Your task to perform on an android device: Add duracell triple a to the cart on newegg Image 0: 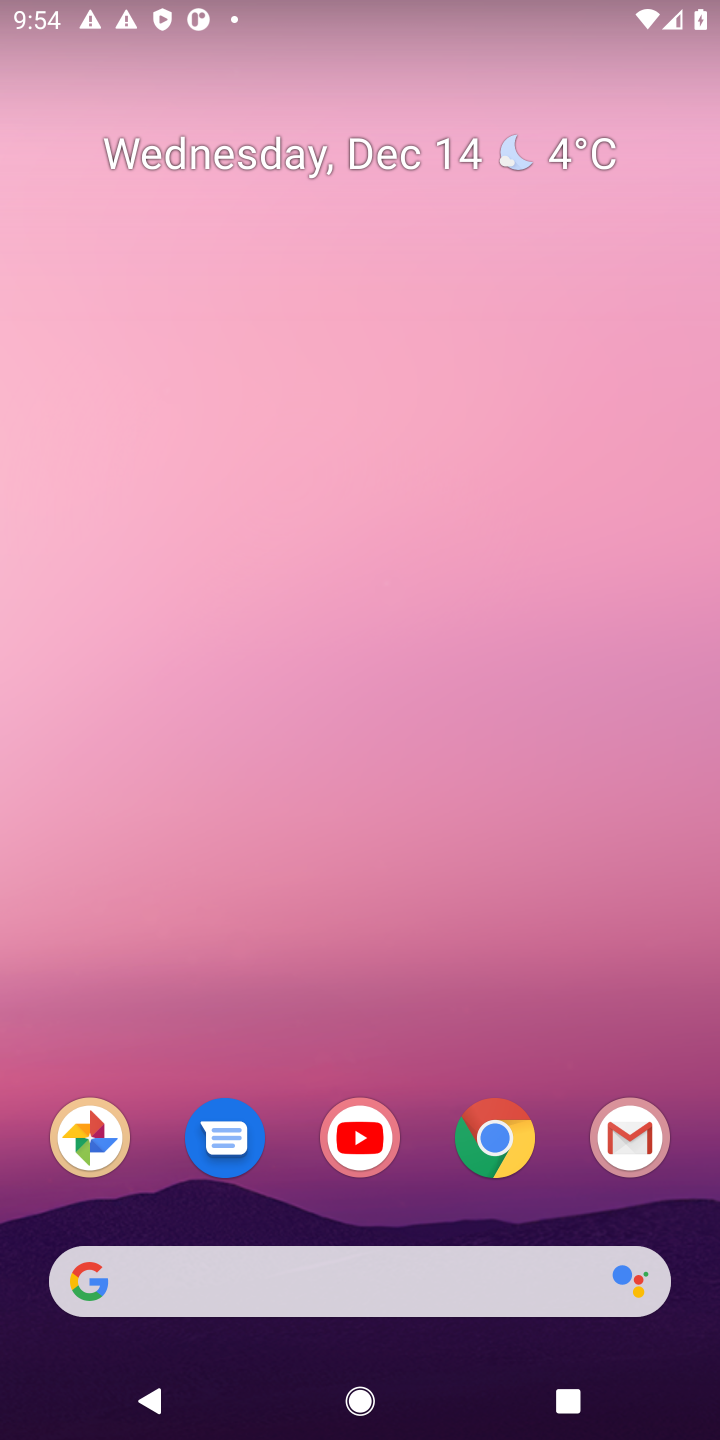
Step 0: click (511, 1165)
Your task to perform on an android device: Add duracell triple a to the cart on newegg Image 1: 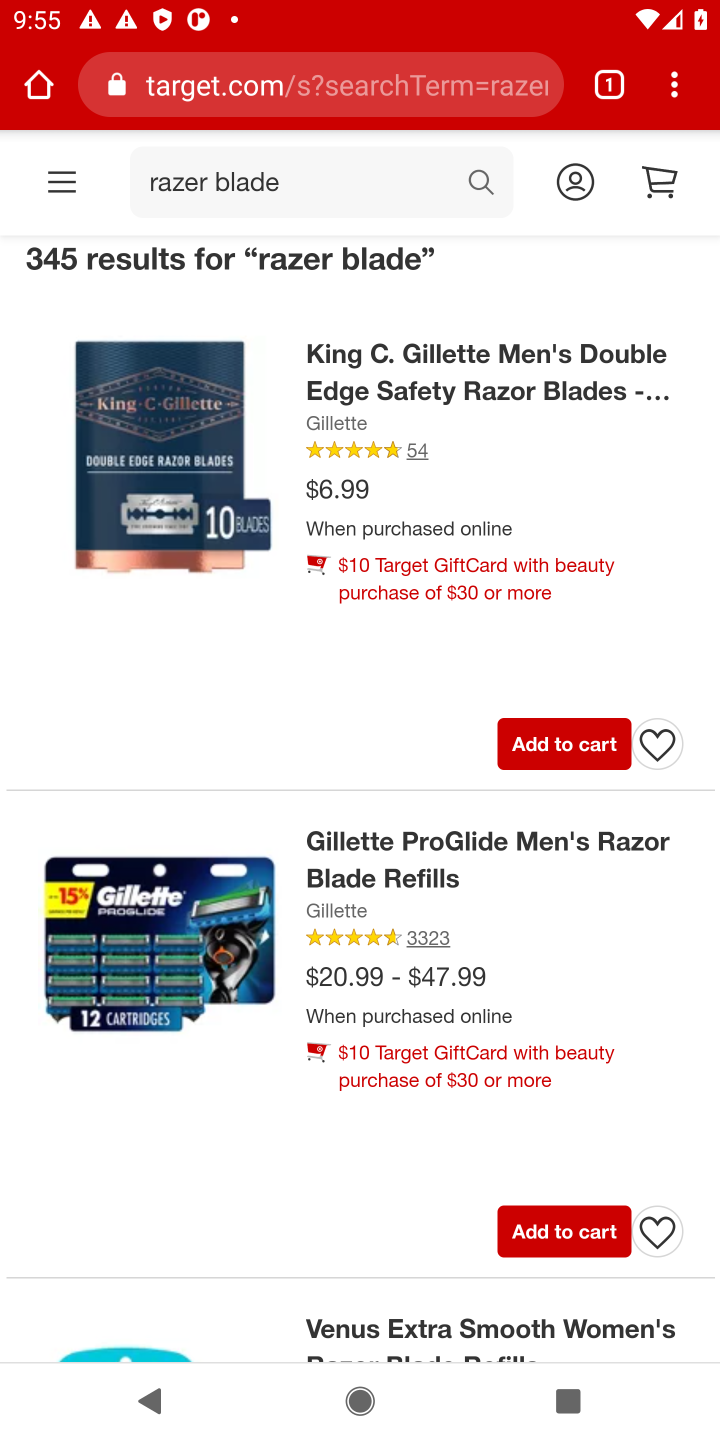
Step 1: click (219, 83)
Your task to perform on an android device: Add duracell triple a to the cart on newegg Image 2: 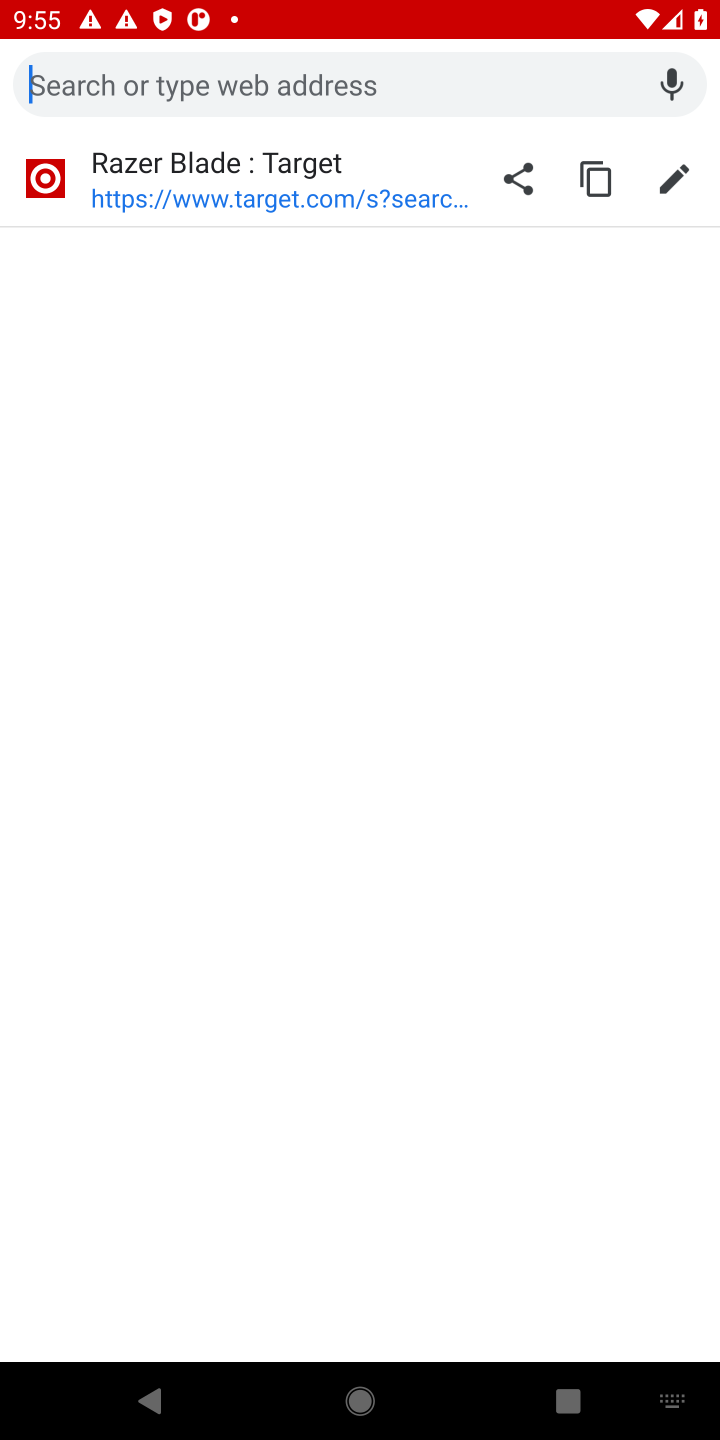
Step 2: type "newegg.com"
Your task to perform on an android device: Add duracell triple a to the cart on newegg Image 3: 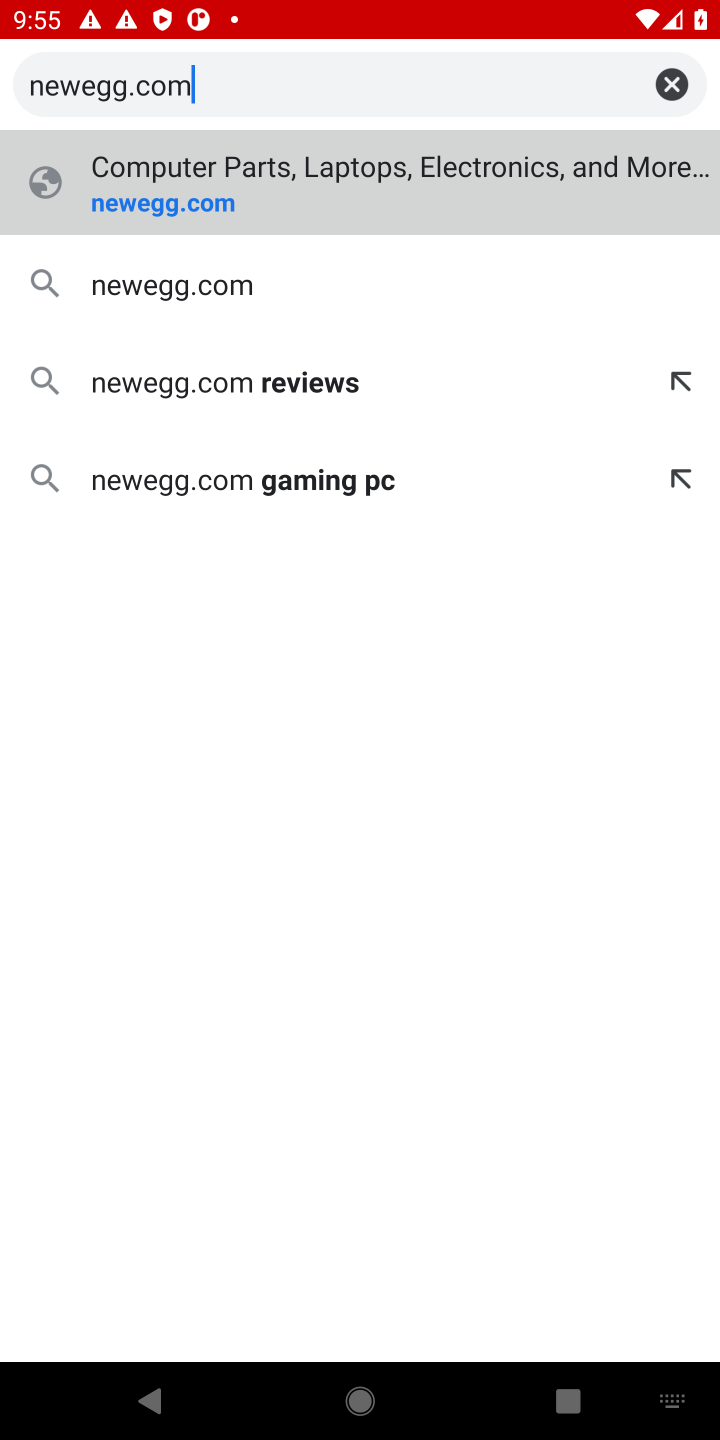
Step 3: click (151, 218)
Your task to perform on an android device: Add duracell triple a to the cart on newegg Image 4: 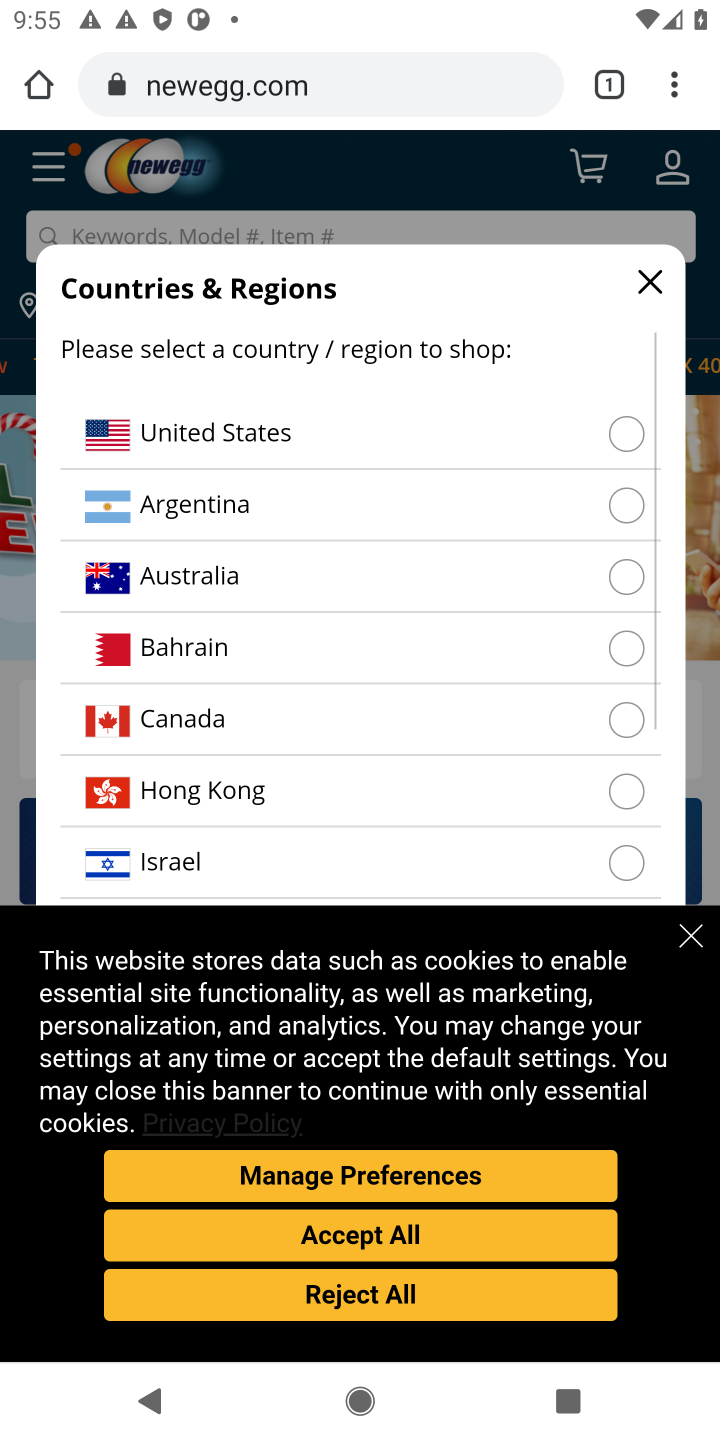
Step 4: click (689, 946)
Your task to perform on an android device: Add duracell triple a to the cart on newegg Image 5: 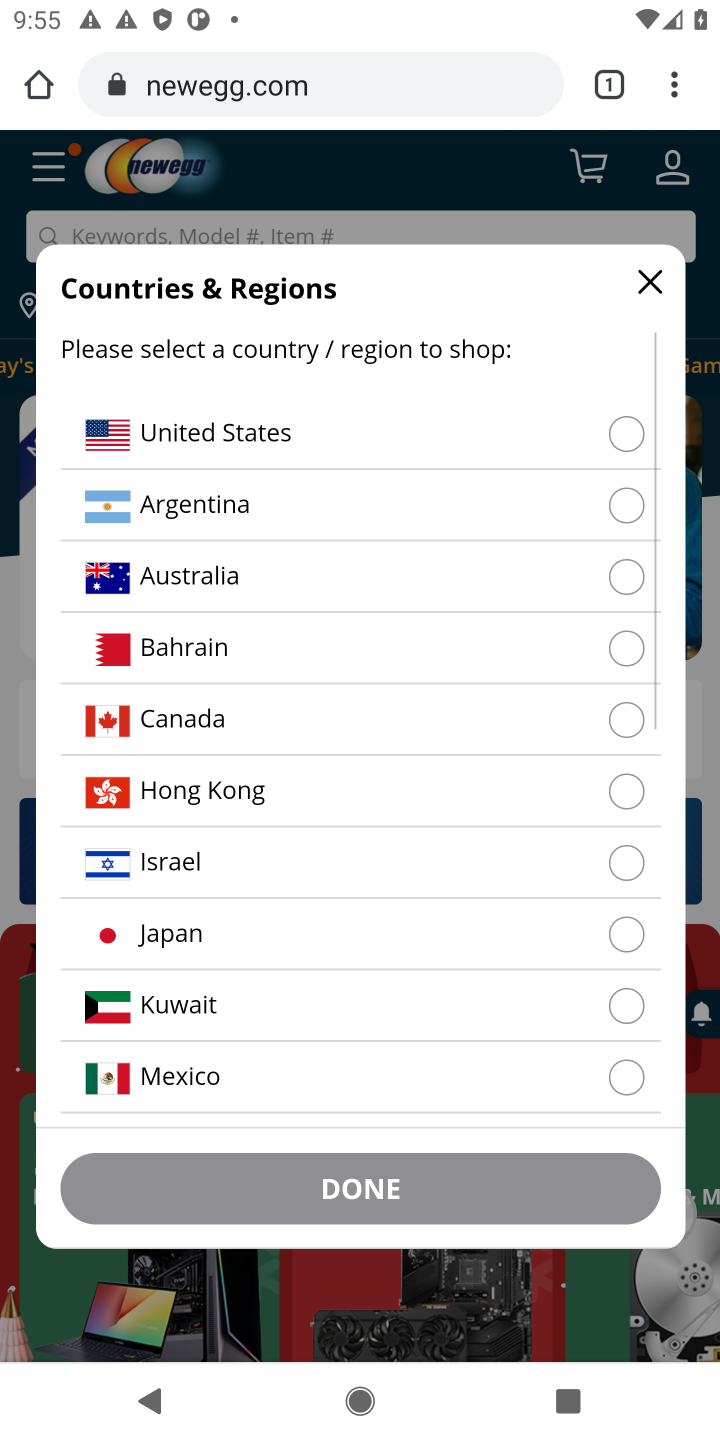
Step 5: click (150, 444)
Your task to perform on an android device: Add duracell triple a to the cart on newegg Image 6: 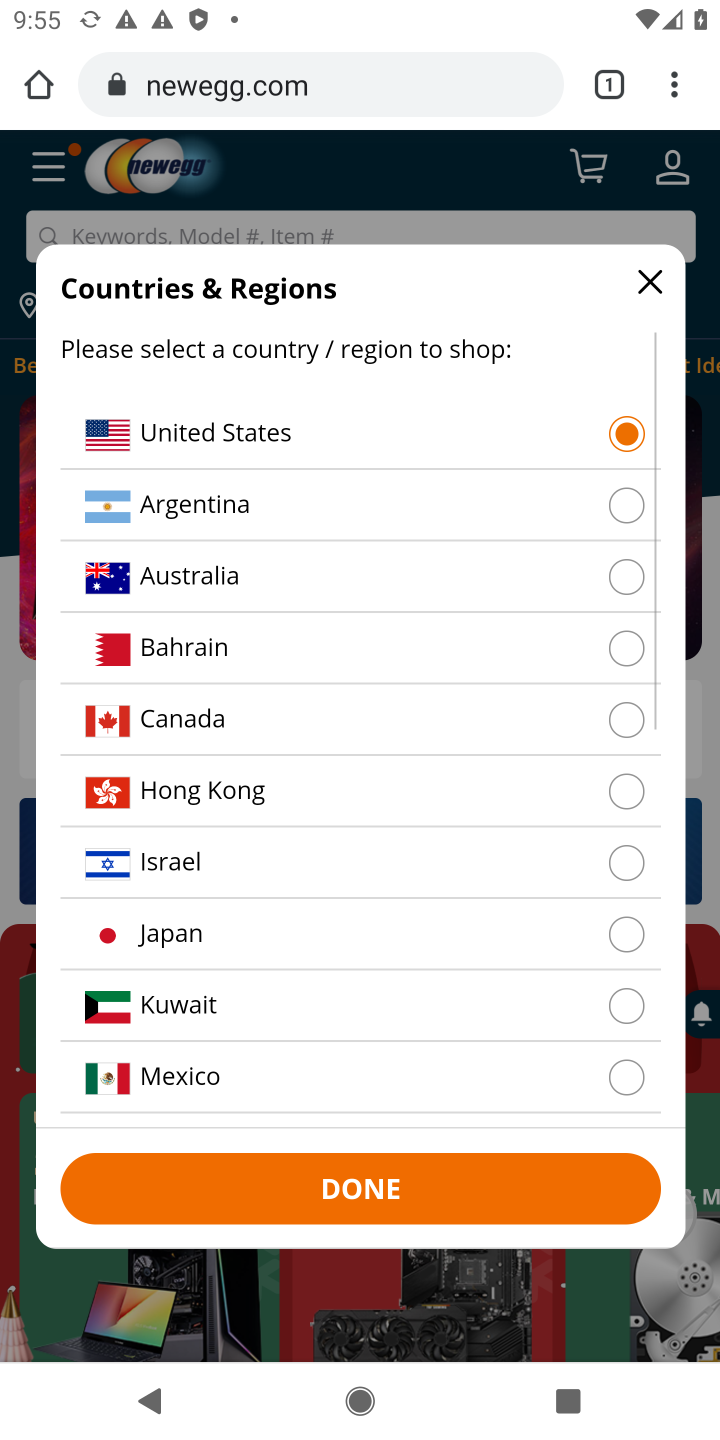
Step 6: click (346, 1203)
Your task to perform on an android device: Add duracell triple a to the cart on newegg Image 7: 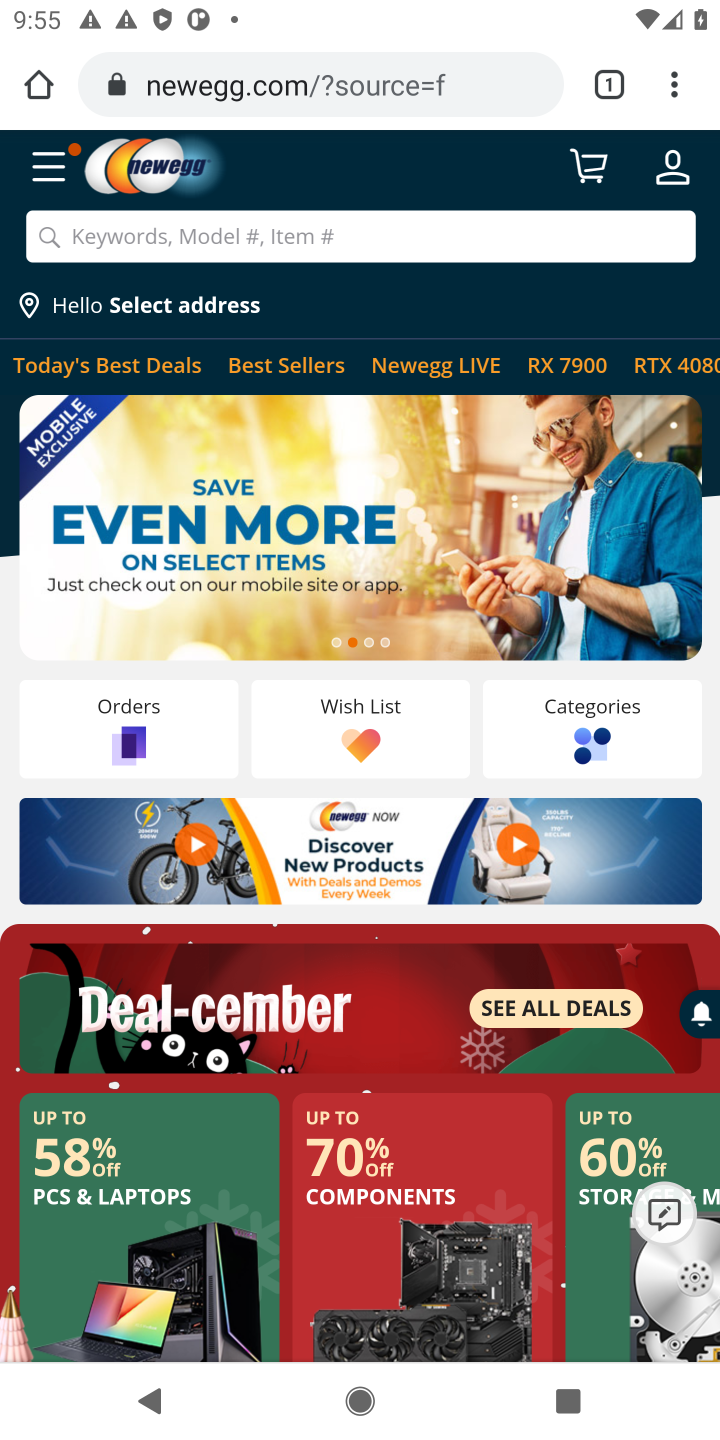
Step 7: click (127, 242)
Your task to perform on an android device: Add duracell triple a to the cart on newegg Image 8: 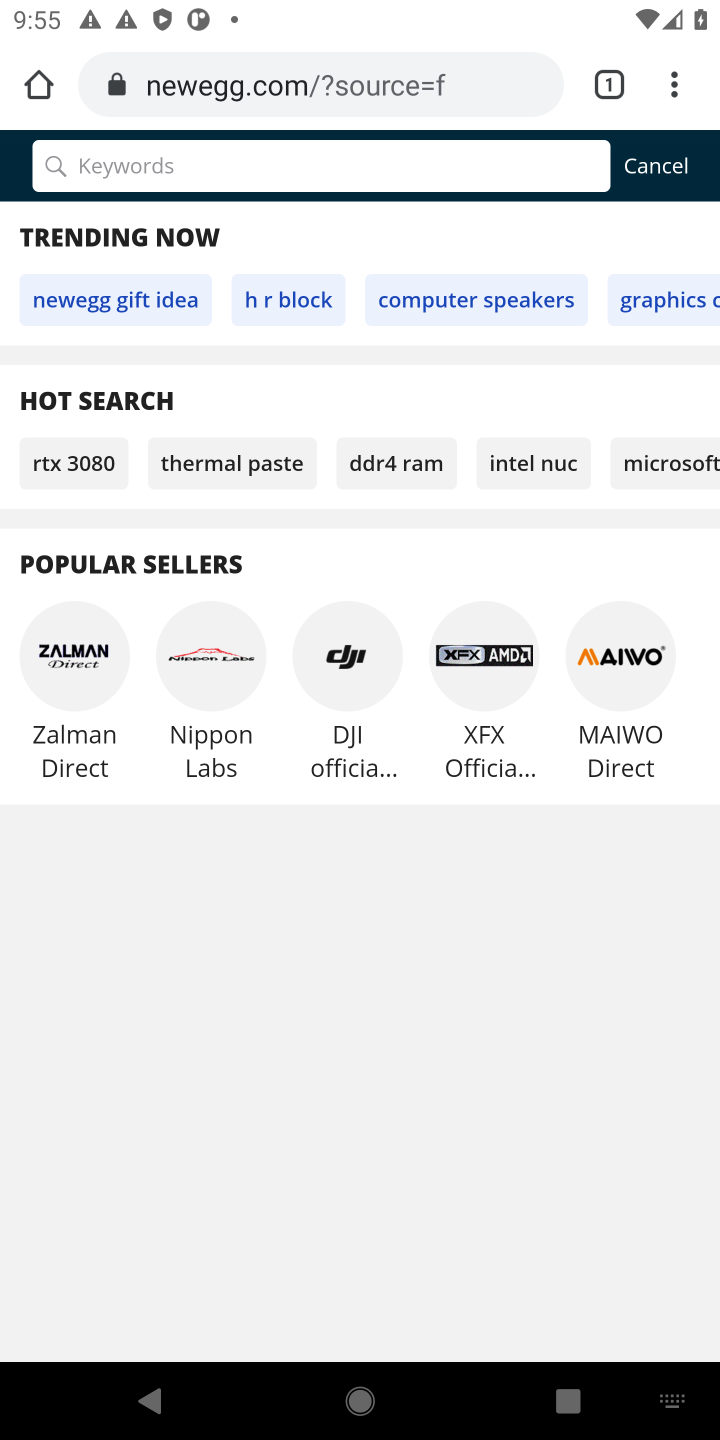
Step 8: type "duracell triple a"
Your task to perform on an android device: Add duracell triple a to the cart on newegg Image 9: 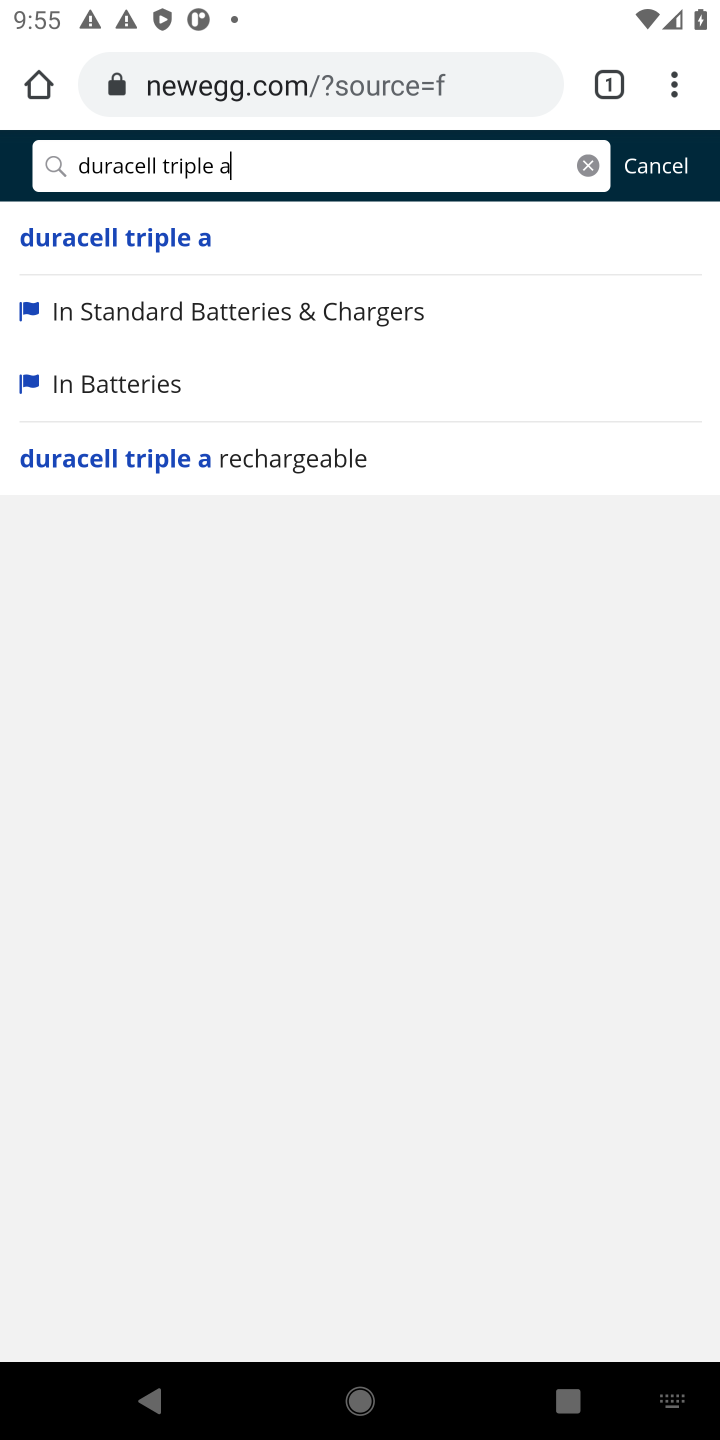
Step 9: click (105, 247)
Your task to perform on an android device: Add duracell triple a to the cart on newegg Image 10: 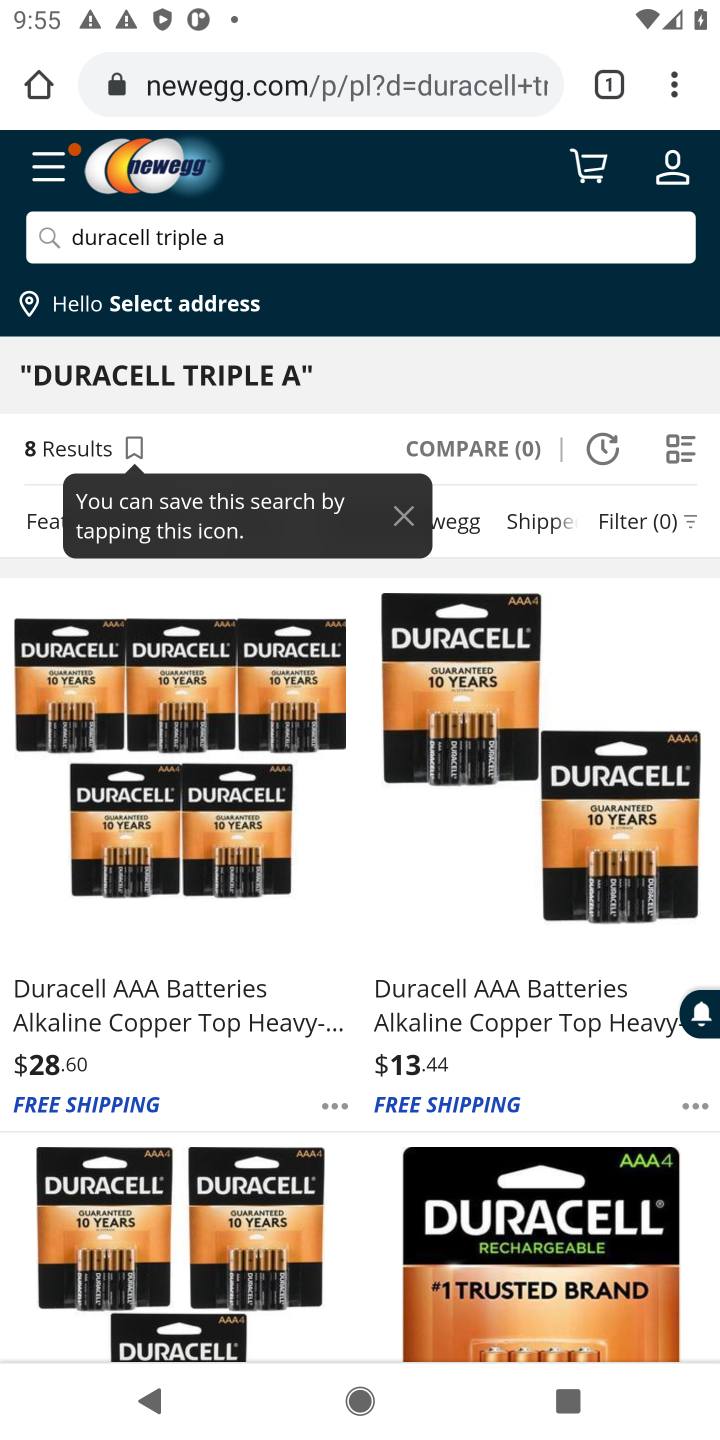
Step 10: click (171, 1005)
Your task to perform on an android device: Add duracell triple a to the cart on newegg Image 11: 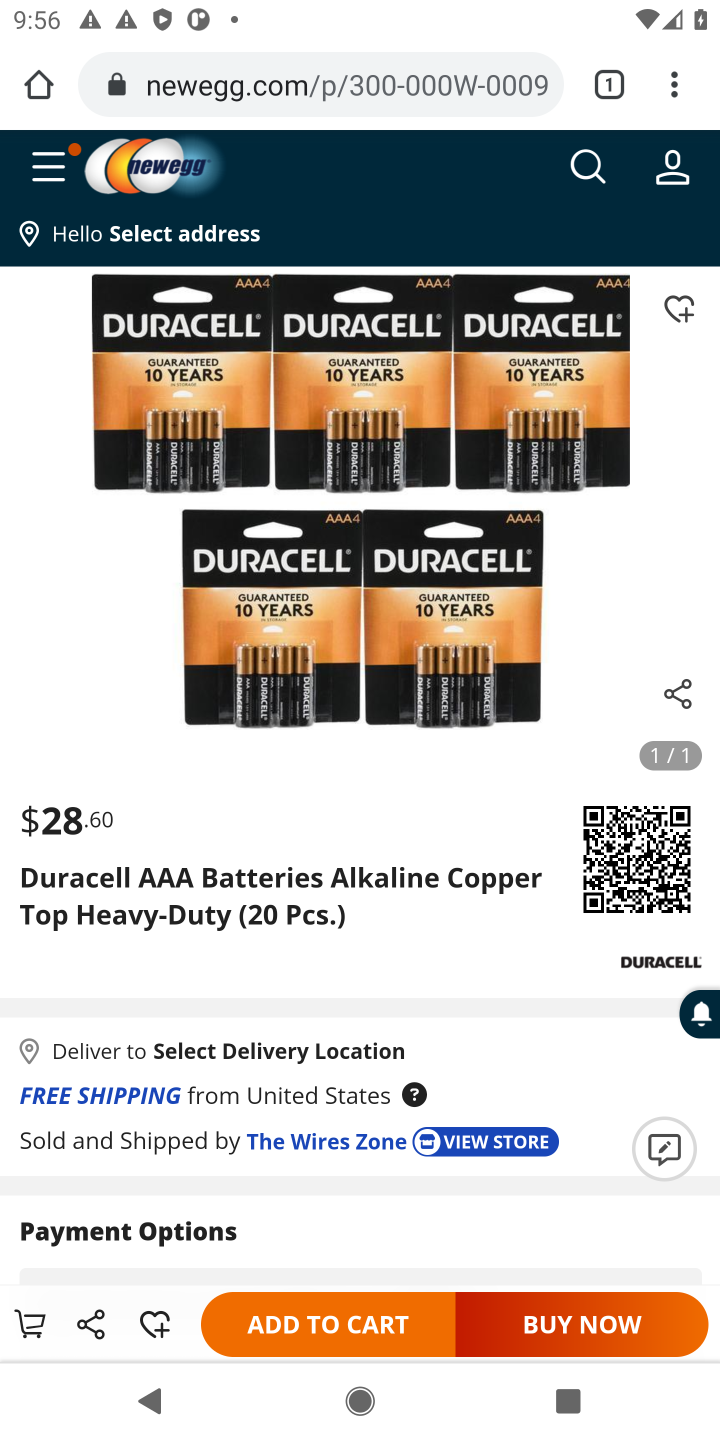
Step 11: click (273, 1316)
Your task to perform on an android device: Add duracell triple a to the cart on newegg Image 12: 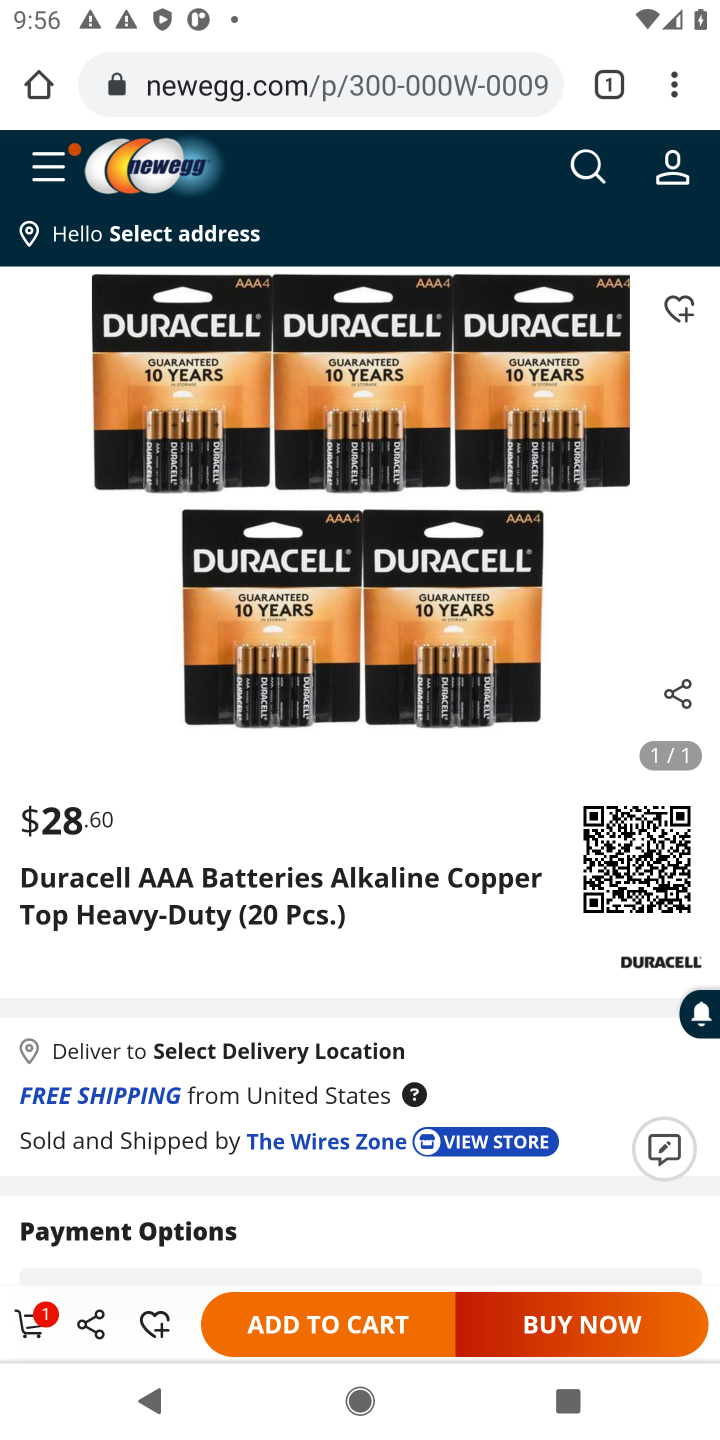
Step 12: task complete